Your task to perform on an android device: What's the weather today? Image 0: 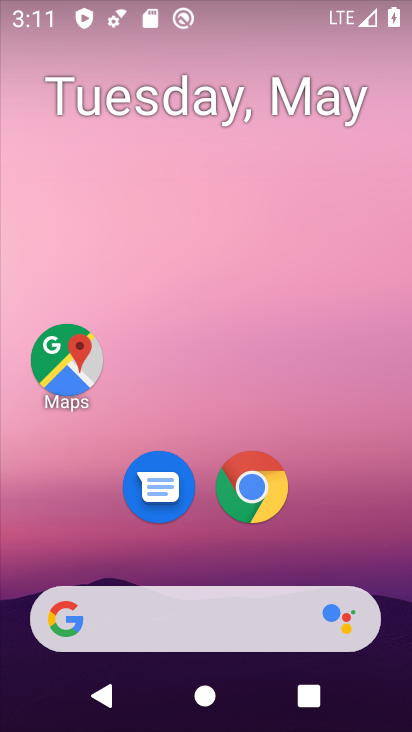
Step 0: click (247, 482)
Your task to perform on an android device: What's the weather today? Image 1: 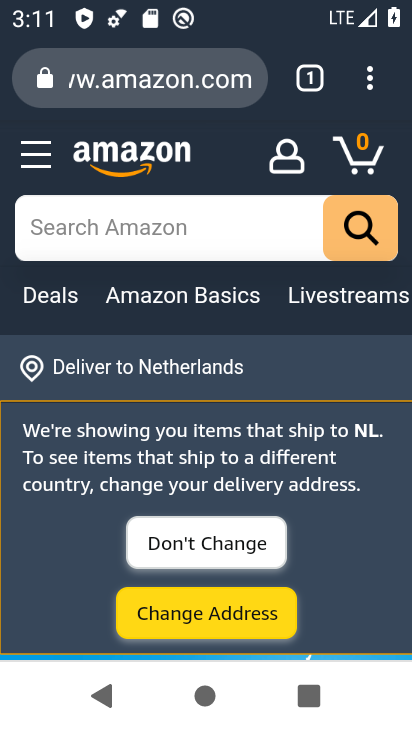
Step 1: click (182, 77)
Your task to perform on an android device: What's the weather today? Image 2: 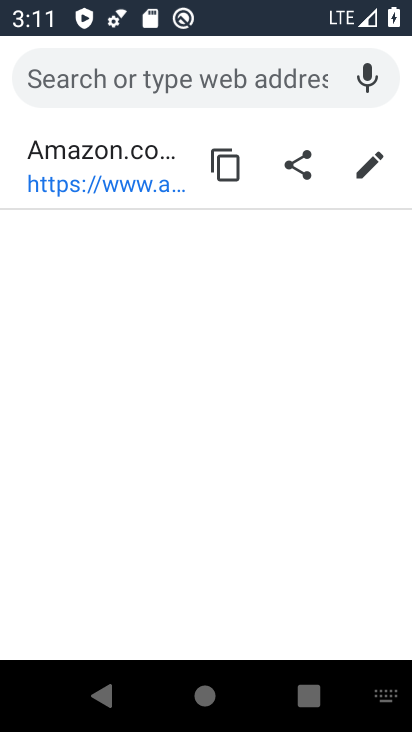
Step 2: type "weather"
Your task to perform on an android device: What's the weather today? Image 3: 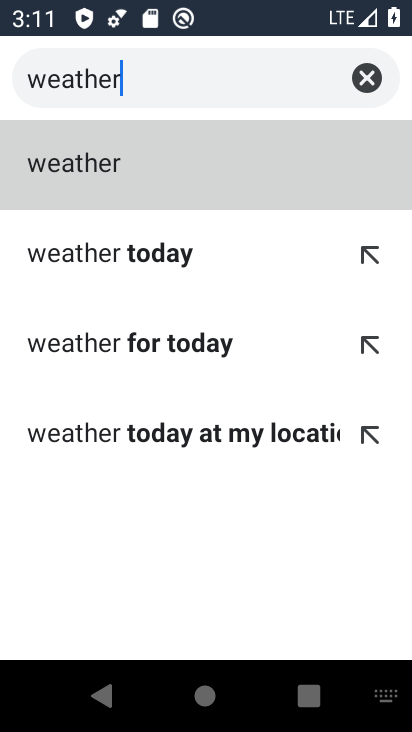
Step 3: click (47, 162)
Your task to perform on an android device: What's the weather today? Image 4: 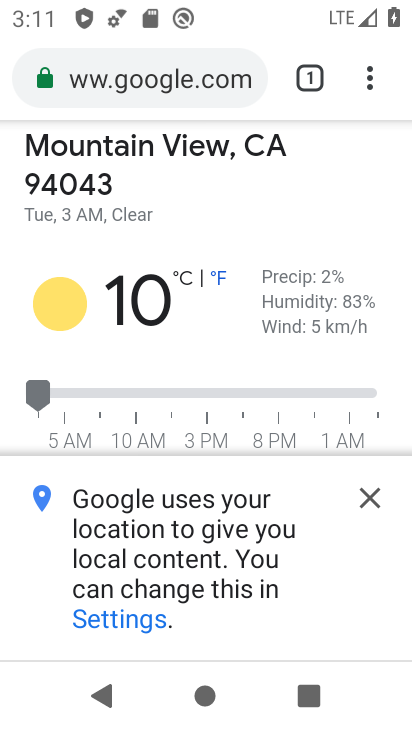
Step 4: task complete